Your task to perform on an android device: Open Amazon Image 0: 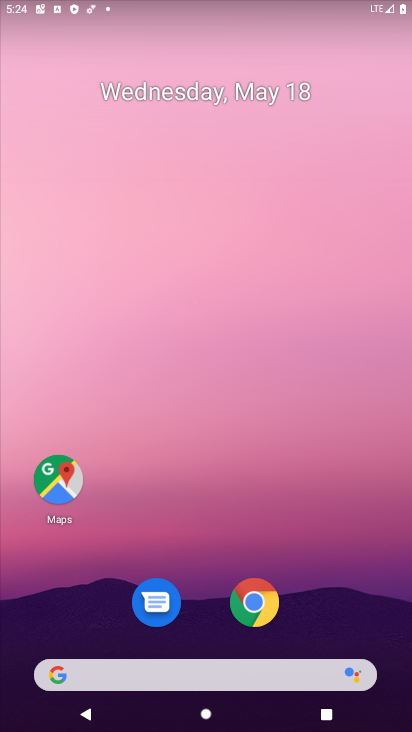
Step 0: drag from (258, 681) to (234, 15)
Your task to perform on an android device: Open Amazon Image 1: 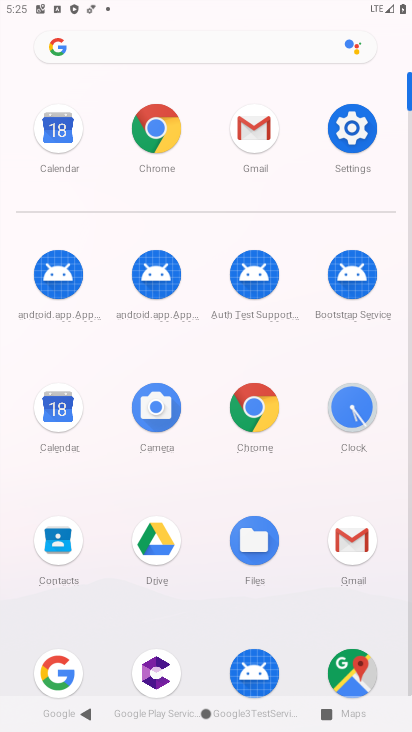
Step 1: click (320, 572)
Your task to perform on an android device: Open Amazon Image 2: 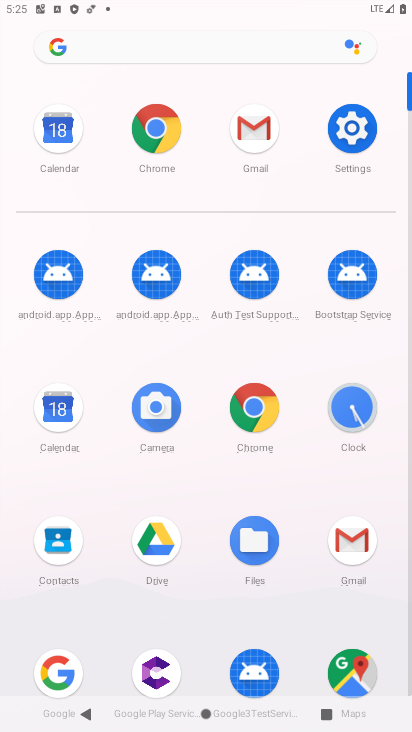
Step 2: click (249, 417)
Your task to perform on an android device: Open Amazon Image 3: 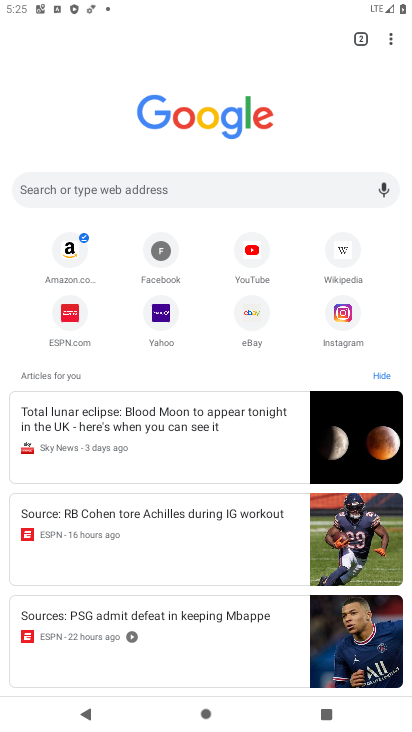
Step 3: click (68, 254)
Your task to perform on an android device: Open Amazon Image 4: 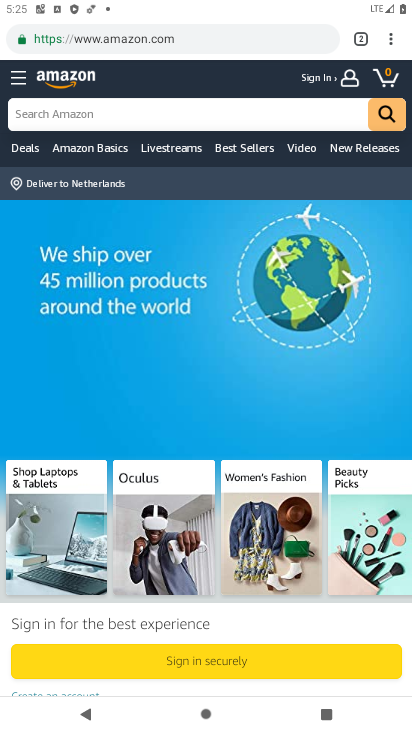
Step 4: task complete